Your task to perform on an android device: check data usage Image 0: 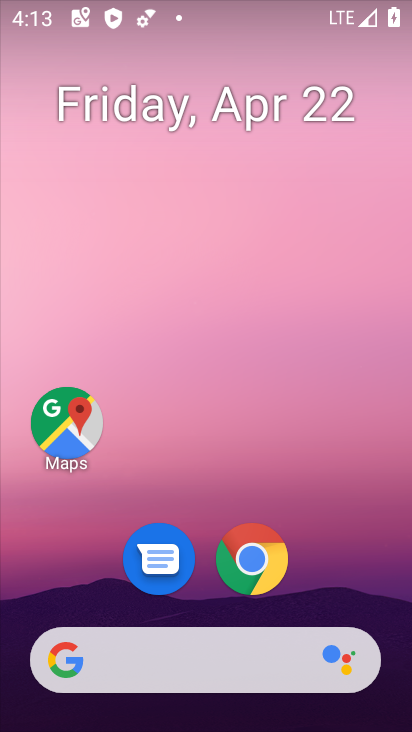
Step 0: drag from (315, 537) to (284, 38)
Your task to perform on an android device: check data usage Image 1: 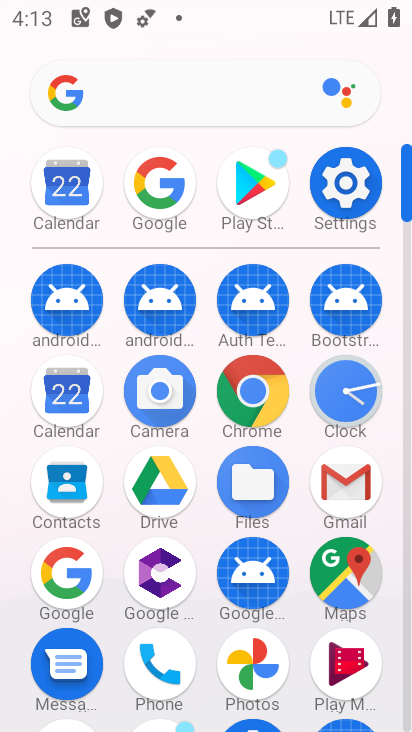
Step 1: click (339, 176)
Your task to perform on an android device: check data usage Image 2: 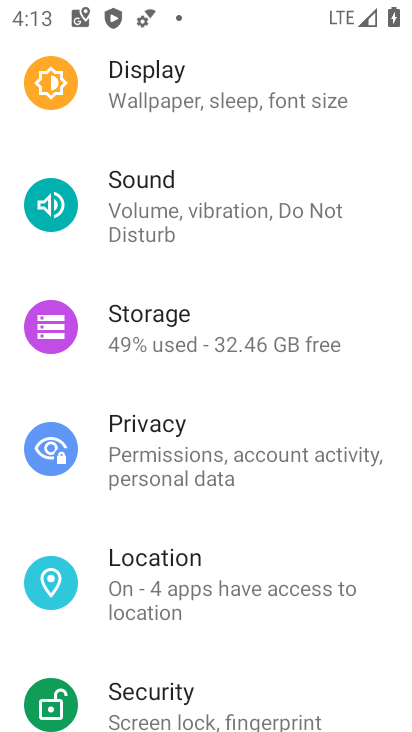
Step 2: drag from (239, 170) to (171, 719)
Your task to perform on an android device: check data usage Image 3: 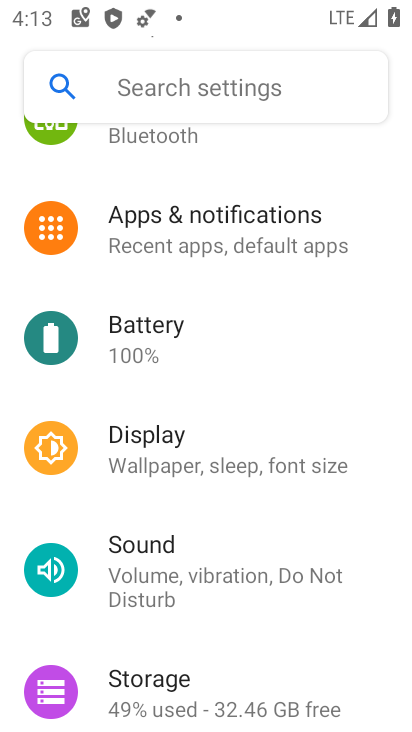
Step 3: drag from (288, 180) to (241, 694)
Your task to perform on an android device: check data usage Image 4: 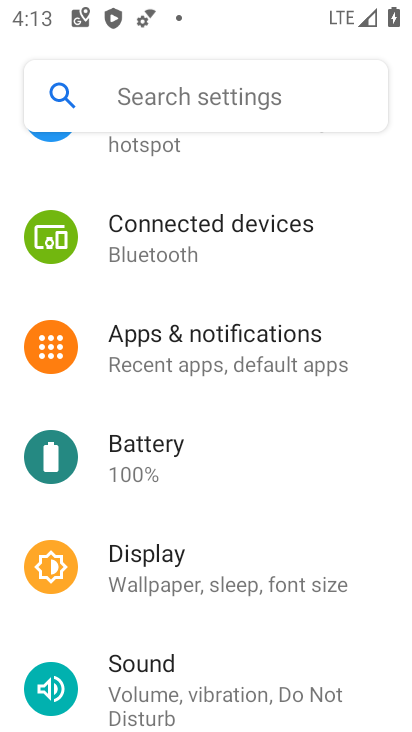
Step 4: drag from (260, 270) to (239, 701)
Your task to perform on an android device: check data usage Image 5: 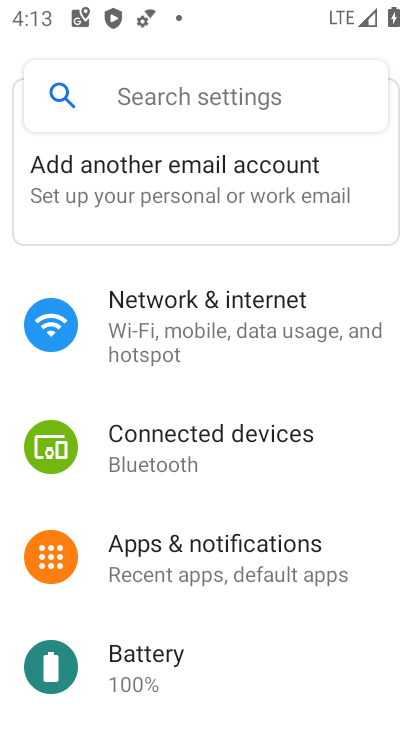
Step 5: click (237, 305)
Your task to perform on an android device: check data usage Image 6: 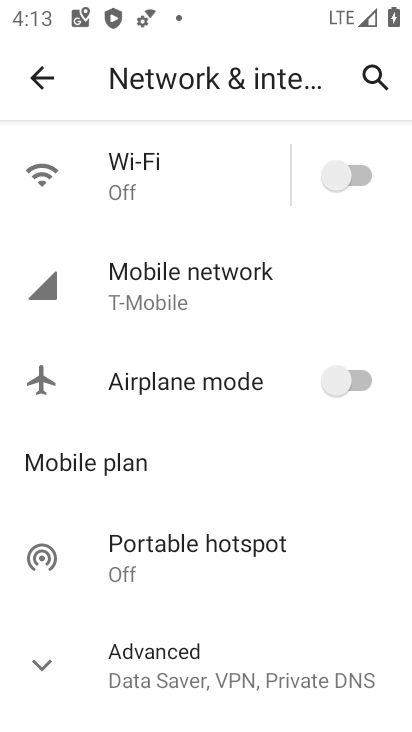
Step 6: click (216, 278)
Your task to perform on an android device: check data usage Image 7: 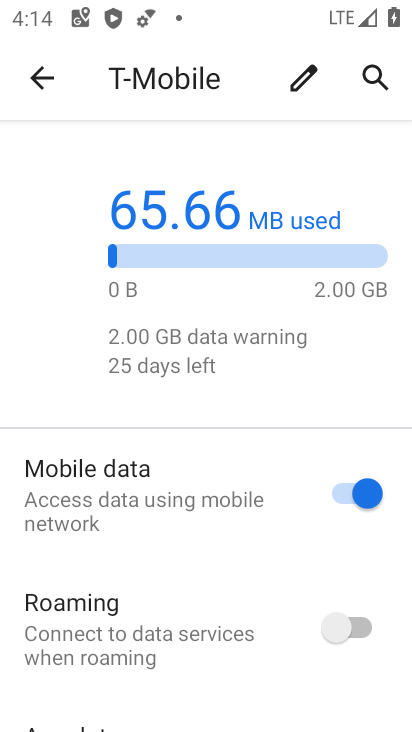
Step 7: task complete